Your task to perform on an android device: find snoozed emails in the gmail app Image 0: 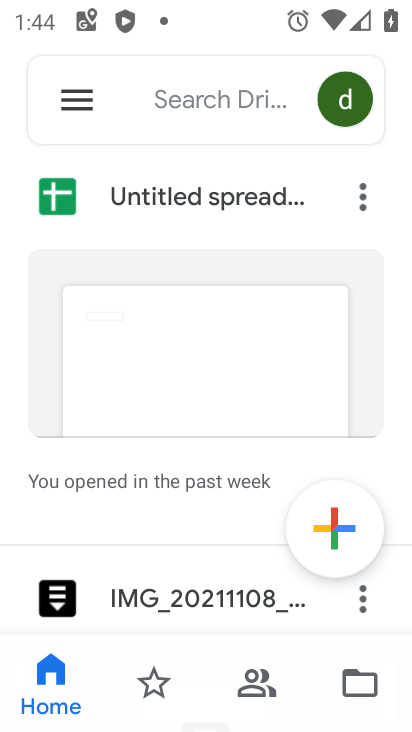
Step 0: press home button
Your task to perform on an android device: find snoozed emails in the gmail app Image 1: 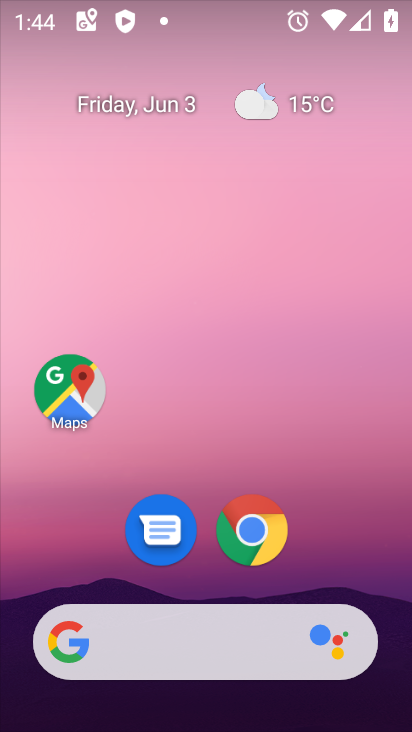
Step 1: drag from (357, 560) to (354, 216)
Your task to perform on an android device: find snoozed emails in the gmail app Image 2: 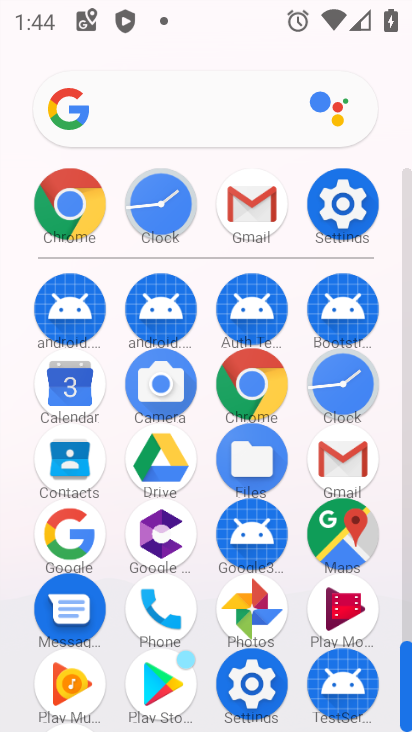
Step 2: click (337, 445)
Your task to perform on an android device: find snoozed emails in the gmail app Image 3: 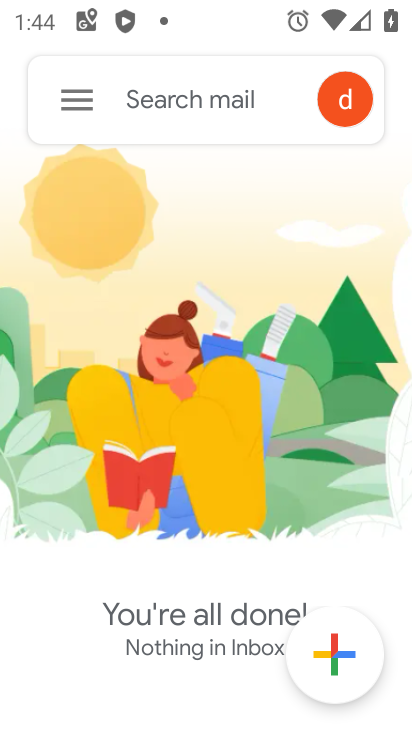
Step 3: click (70, 83)
Your task to perform on an android device: find snoozed emails in the gmail app Image 4: 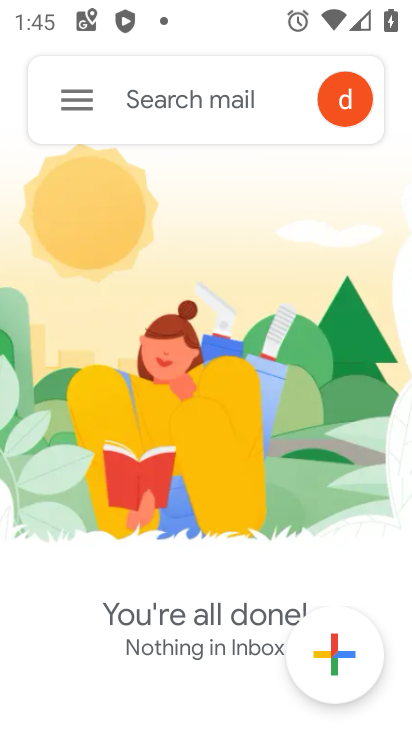
Step 4: click (71, 95)
Your task to perform on an android device: find snoozed emails in the gmail app Image 5: 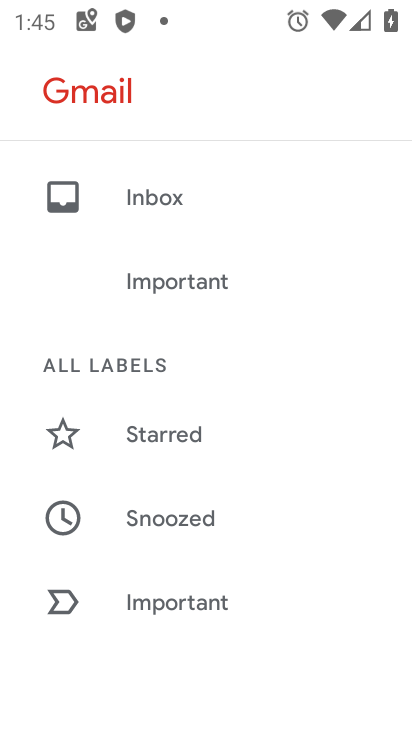
Step 5: click (214, 514)
Your task to perform on an android device: find snoozed emails in the gmail app Image 6: 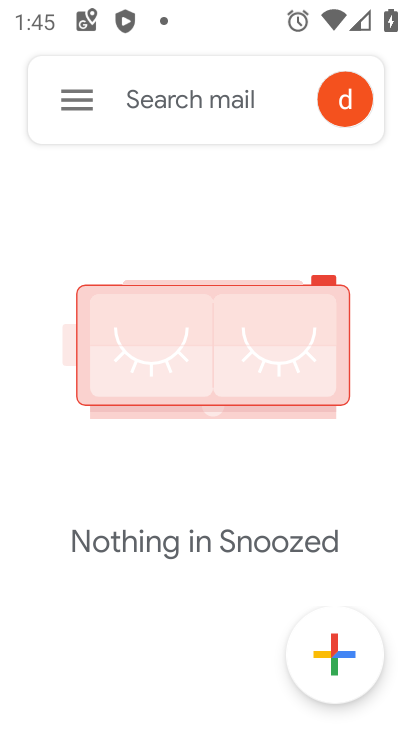
Step 6: click (274, 453)
Your task to perform on an android device: find snoozed emails in the gmail app Image 7: 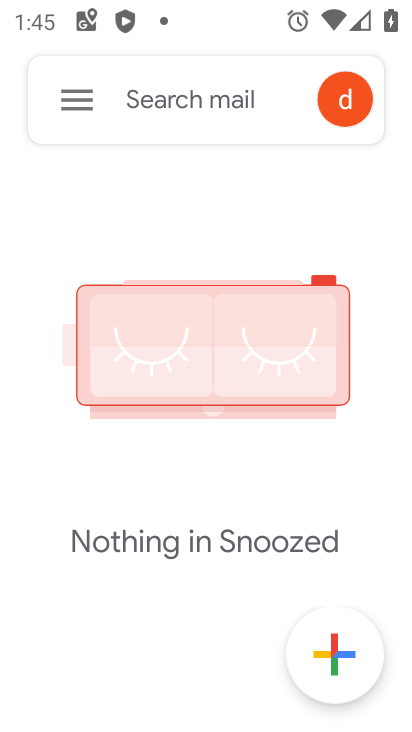
Step 7: task complete